Your task to perform on an android device: What's the weather like in Johannesburg? Image 0: 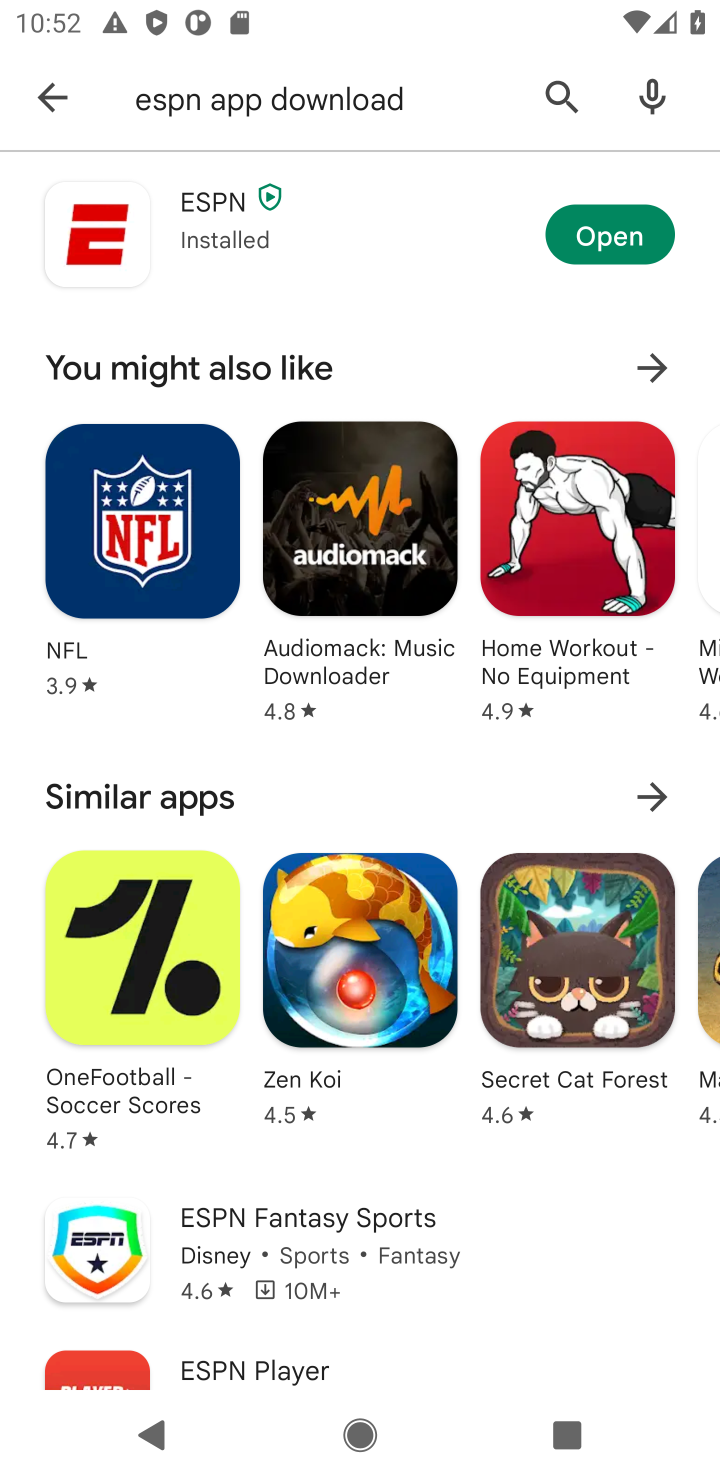
Step 0: press home button
Your task to perform on an android device: What's the weather like in Johannesburg? Image 1: 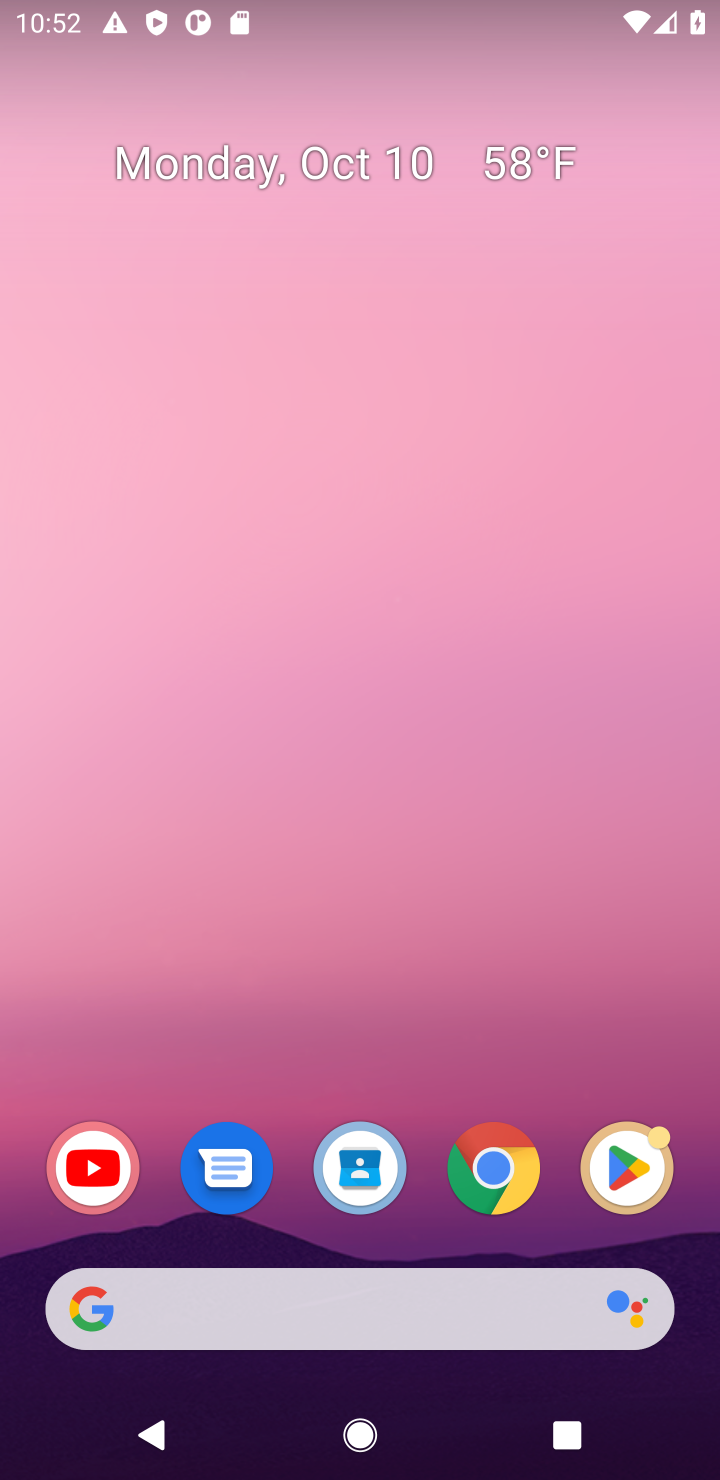
Step 1: click (198, 1307)
Your task to perform on an android device: What's the weather like in Johannesburg? Image 2: 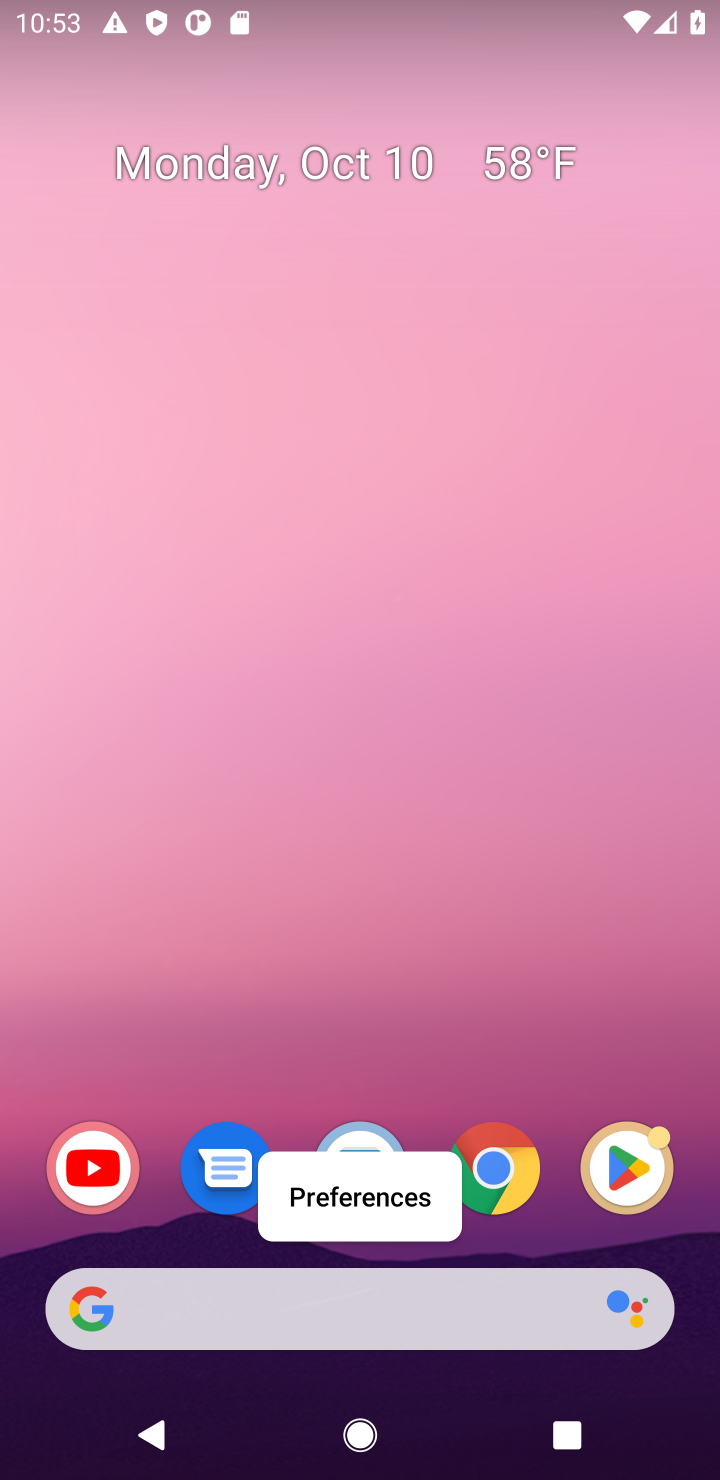
Step 2: click (368, 1309)
Your task to perform on an android device: What's the weather like in Johannesburg? Image 3: 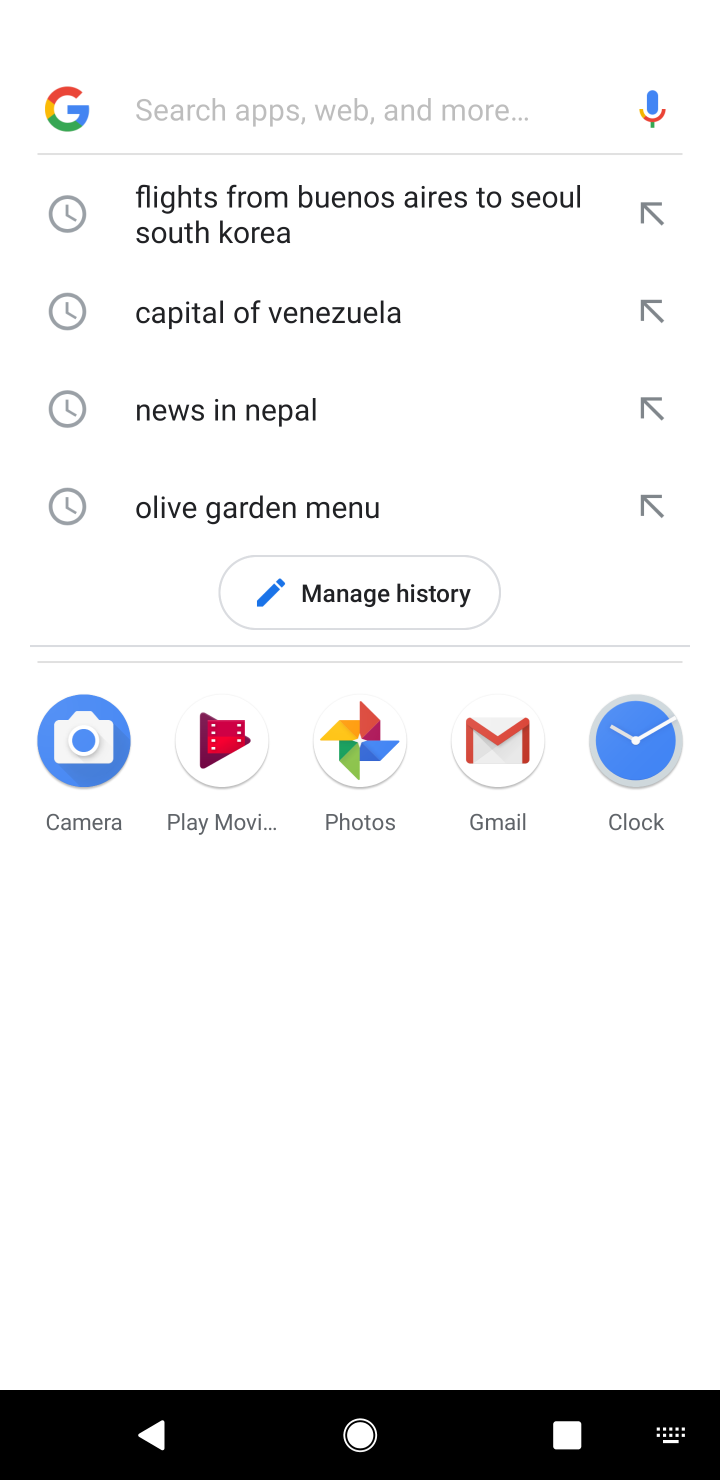
Step 3: type "weather like in Johannesburg"
Your task to perform on an android device: What's the weather like in Johannesburg? Image 4: 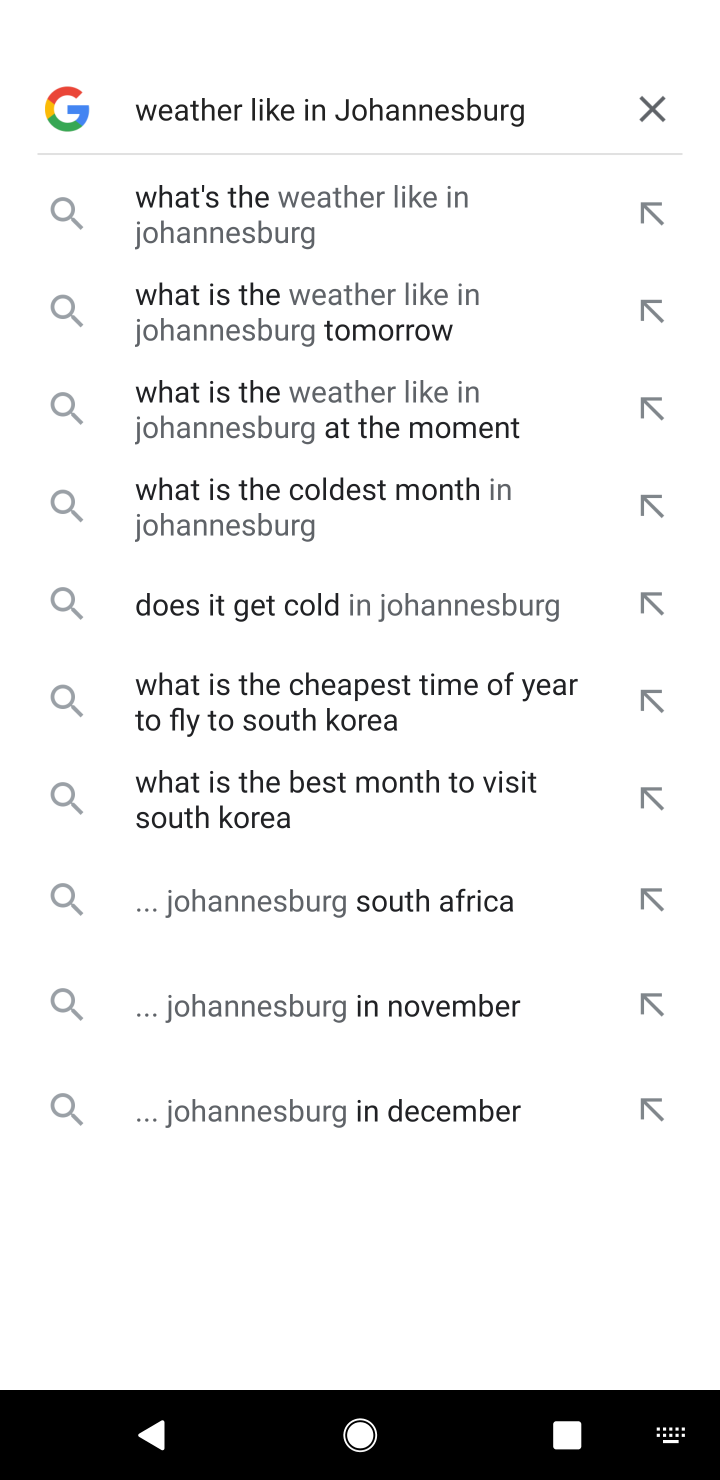
Step 4: click (162, 220)
Your task to perform on an android device: What's the weather like in Johannesburg? Image 5: 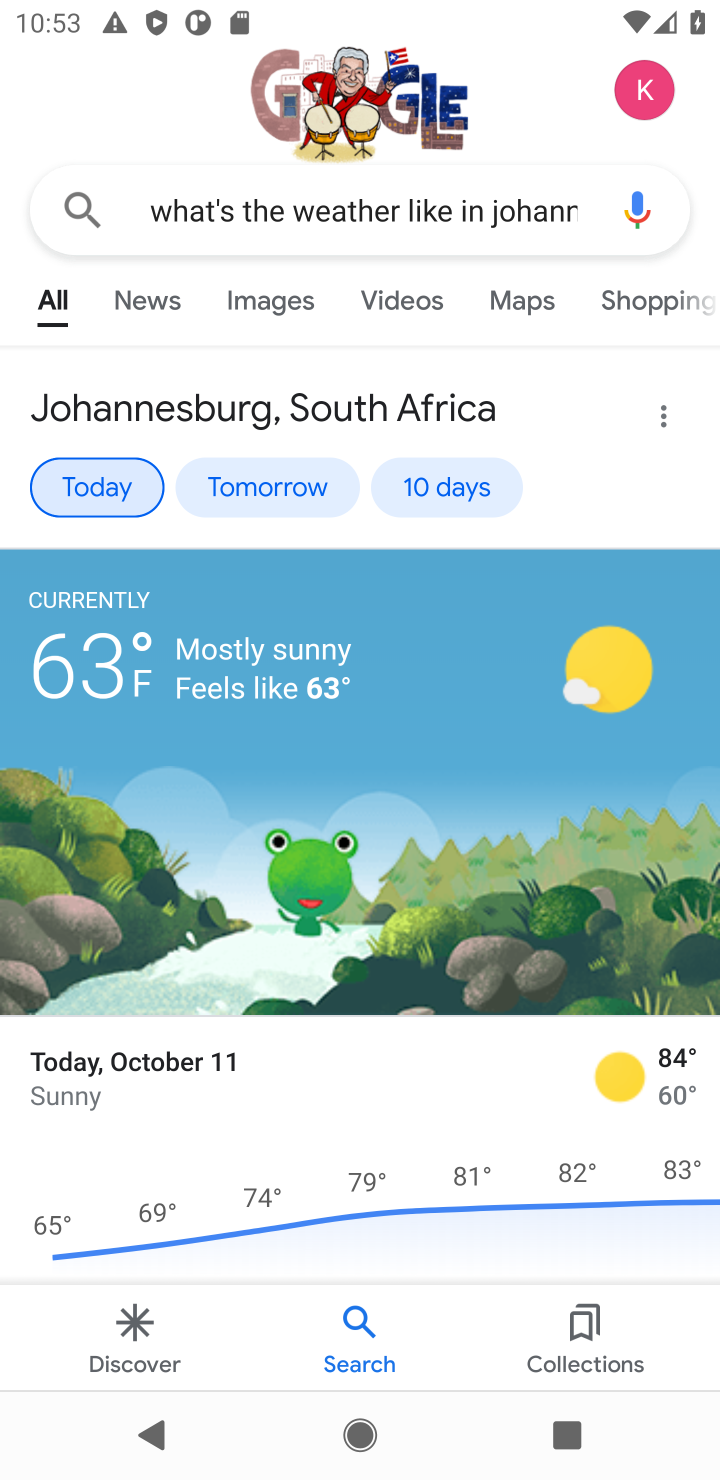
Step 5: task complete